Your task to perform on an android device: turn off notifications in google photos Image 0: 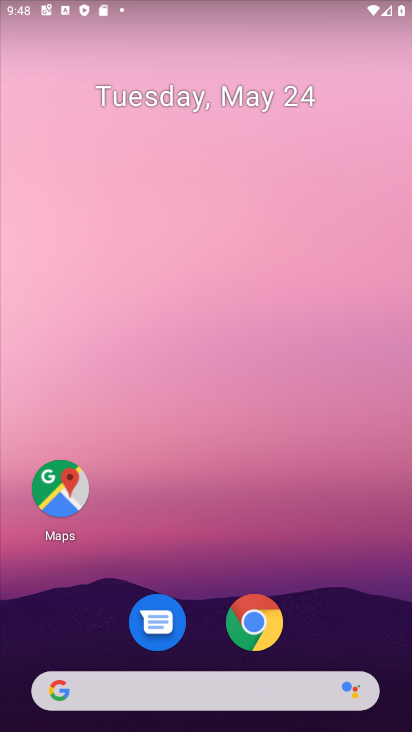
Step 0: press home button
Your task to perform on an android device: turn off notifications in google photos Image 1: 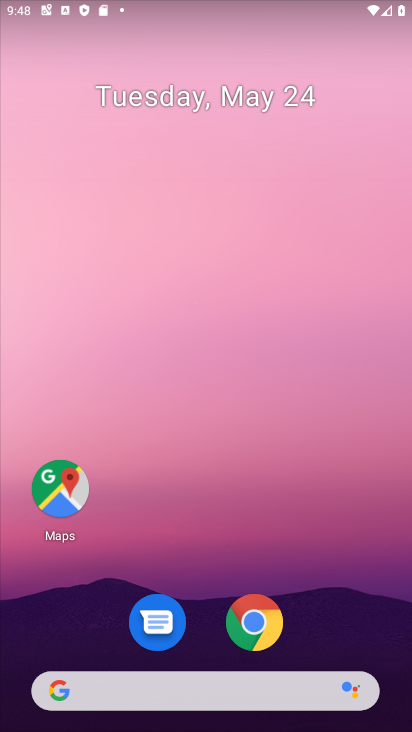
Step 1: drag from (159, 714) to (352, 117)
Your task to perform on an android device: turn off notifications in google photos Image 2: 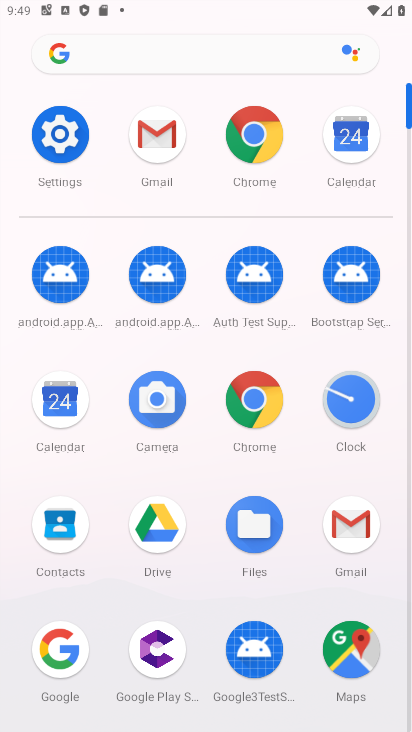
Step 2: drag from (206, 472) to (276, 226)
Your task to perform on an android device: turn off notifications in google photos Image 3: 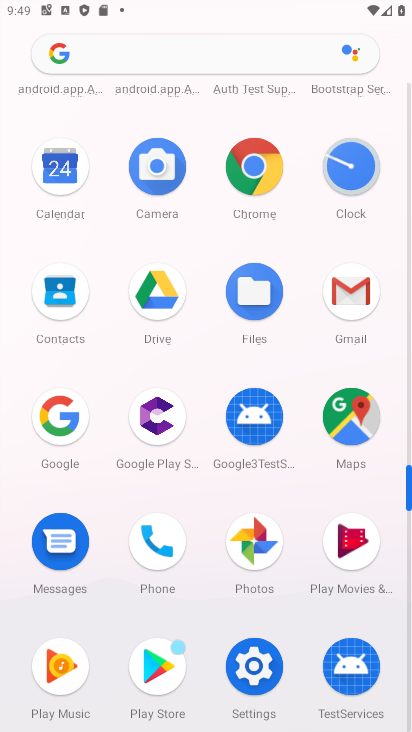
Step 3: click (256, 533)
Your task to perform on an android device: turn off notifications in google photos Image 4: 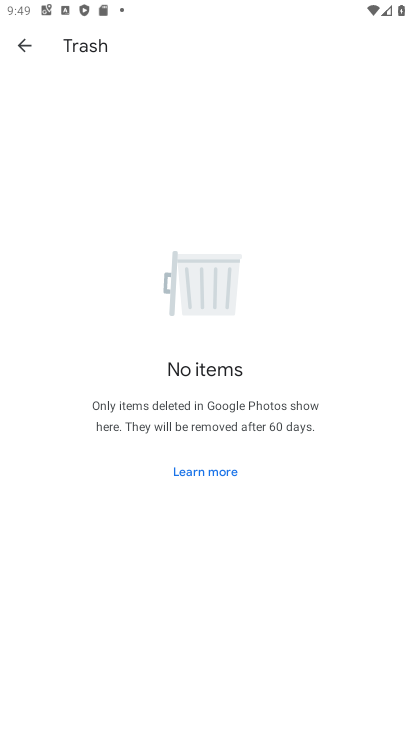
Step 4: click (24, 45)
Your task to perform on an android device: turn off notifications in google photos Image 5: 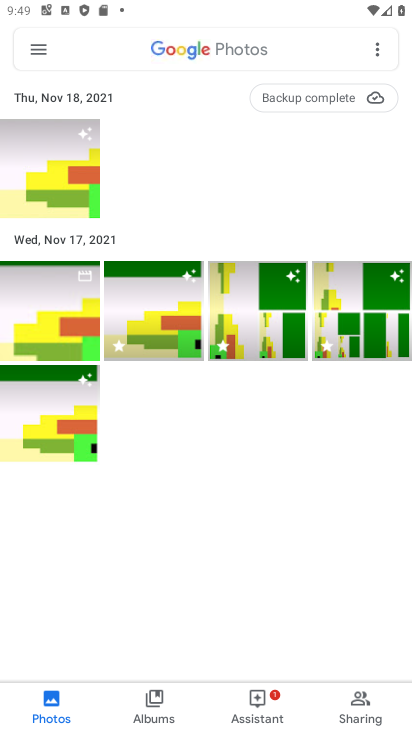
Step 5: click (49, 61)
Your task to perform on an android device: turn off notifications in google photos Image 6: 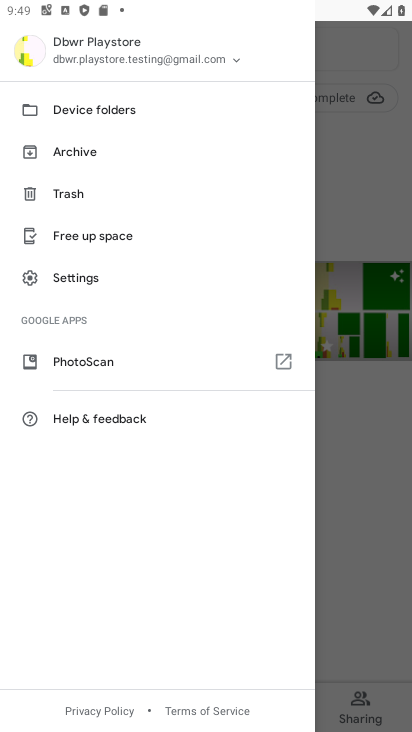
Step 6: click (85, 278)
Your task to perform on an android device: turn off notifications in google photos Image 7: 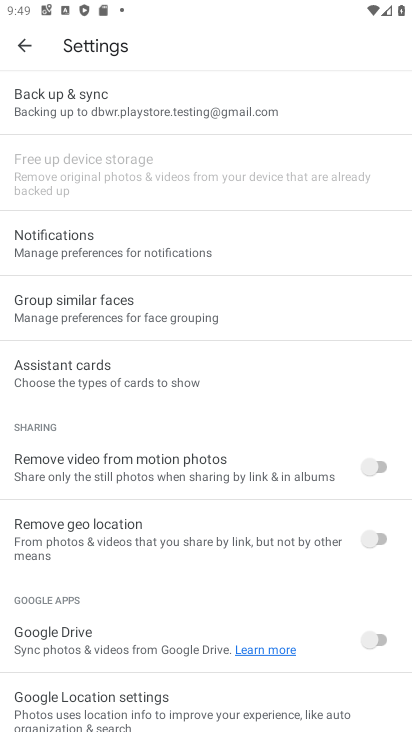
Step 7: click (92, 256)
Your task to perform on an android device: turn off notifications in google photos Image 8: 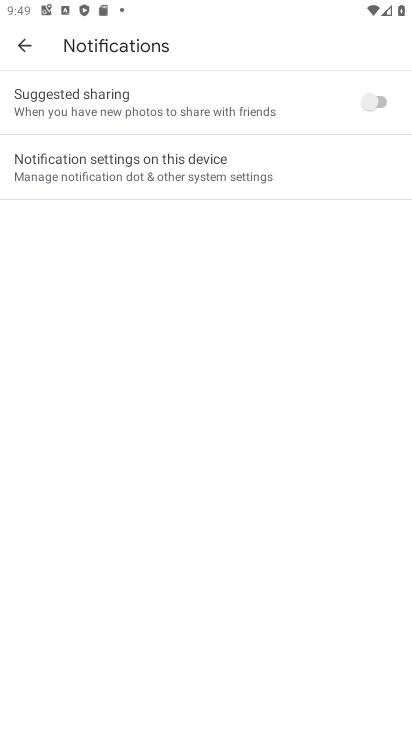
Step 8: click (225, 157)
Your task to perform on an android device: turn off notifications in google photos Image 9: 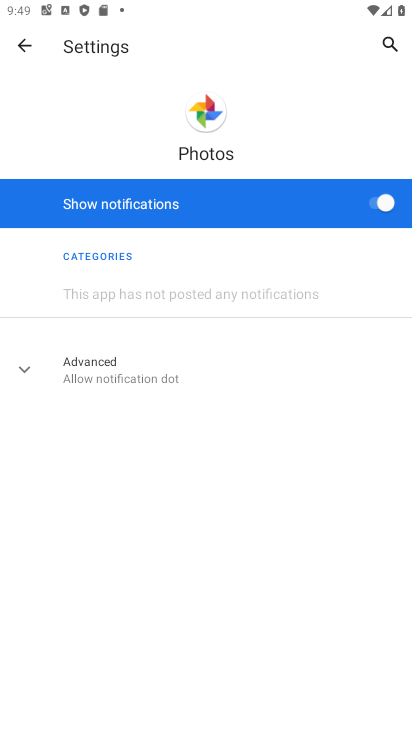
Step 9: click (370, 202)
Your task to perform on an android device: turn off notifications in google photos Image 10: 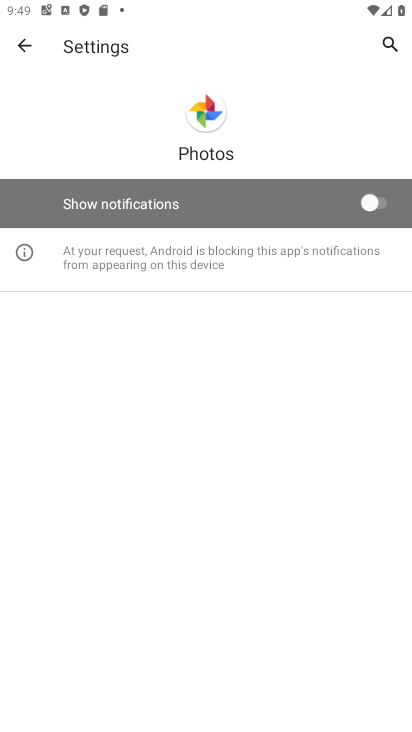
Step 10: task complete